Your task to perform on an android device: star an email in the gmail app Image 0: 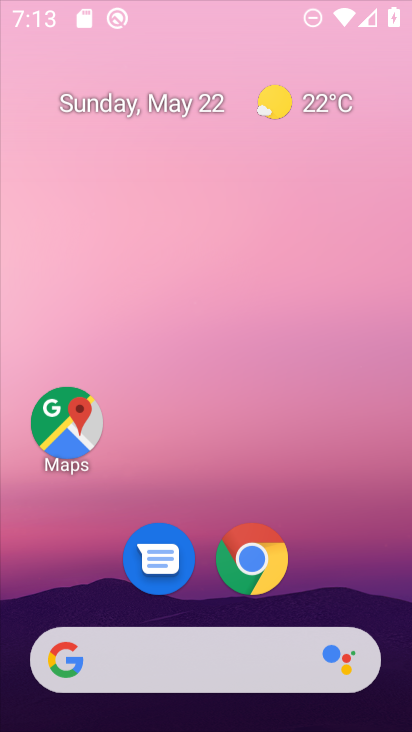
Step 0: click (204, 144)
Your task to perform on an android device: star an email in the gmail app Image 1: 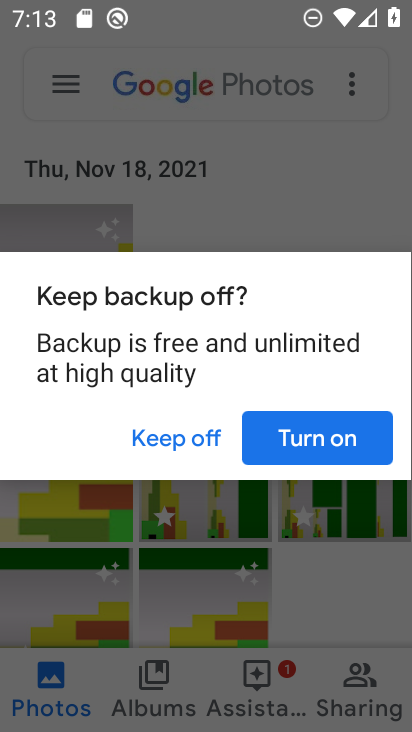
Step 1: click (174, 439)
Your task to perform on an android device: star an email in the gmail app Image 2: 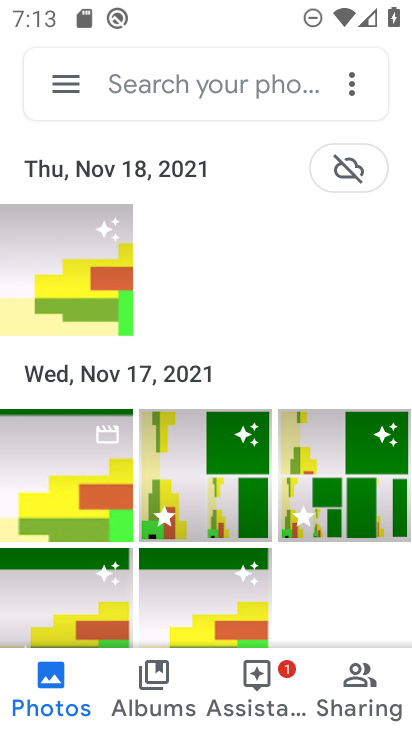
Step 2: press home button
Your task to perform on an android device: star an email in the gmail app Image 3: 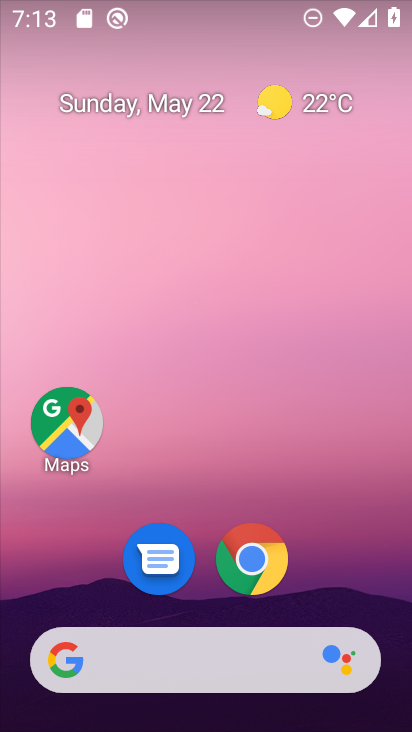
Step 3: drag from (250, 627) to (232, 143)
Your task to perform on an android device: star an email in the gmail app Image 4: 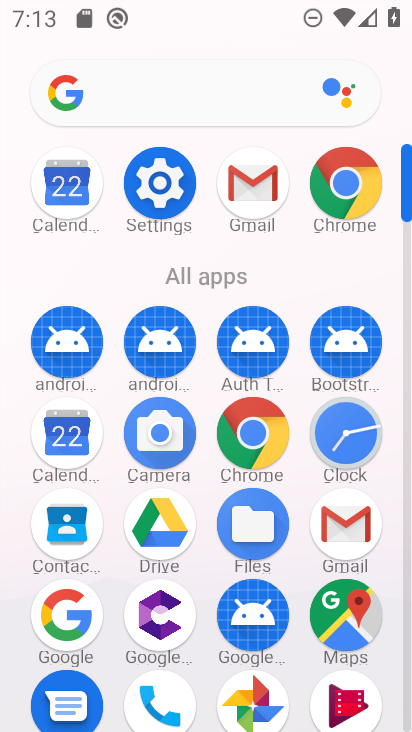
Step 4: click (234, 181)
Your task to perform on an android device: star an email in the gmail app Image 5: 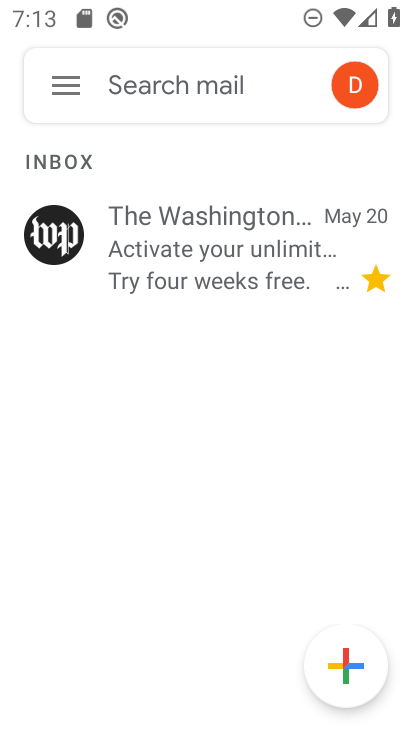
Step 5: click (65, 99)
Your task to perform on an android device: star an email in the gmail app Image 6: 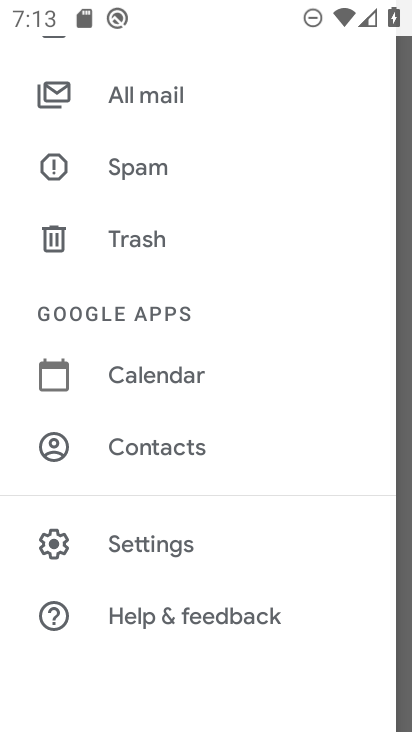
Step 6: click (136, 107)
Your task to perform on an android device: star an email in the gmail app Image 7: 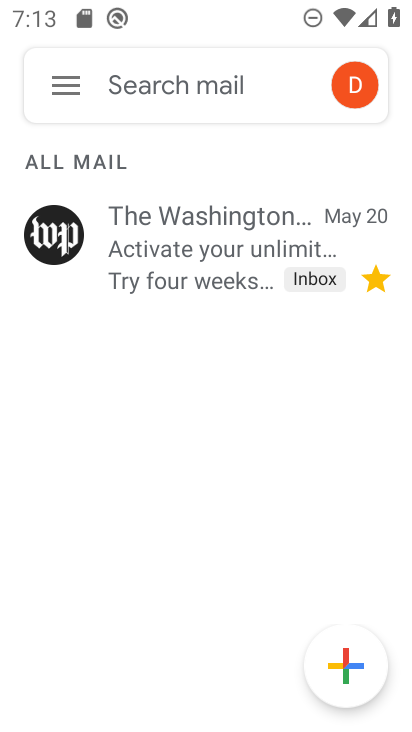
Step 7: click (201, 239)
Your task to perform on an android device: star an email in the gmail app Image 8: 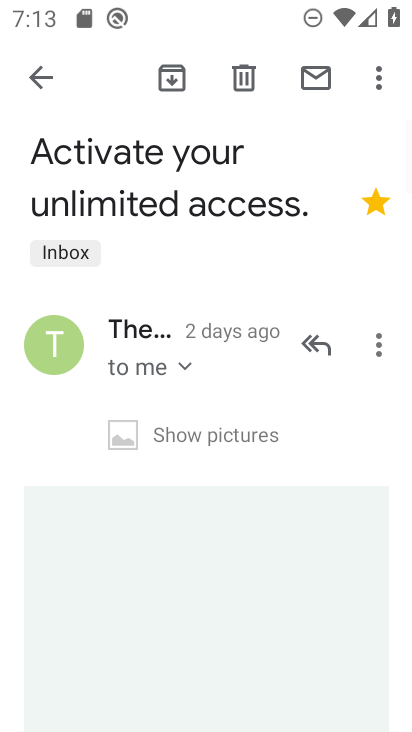
Step 8: click (373, 203)
Your task to perform on an android device: star an email in the gmail app Image 9: 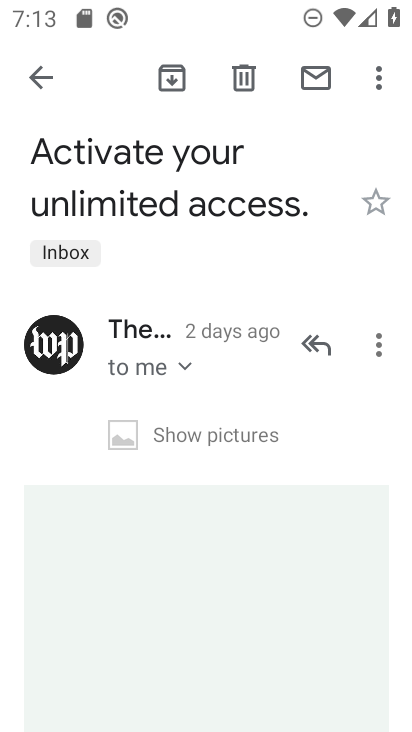
Step 9: click (370, 208)
Your task to perform on an android device: star an email in the gmail app Image 10: 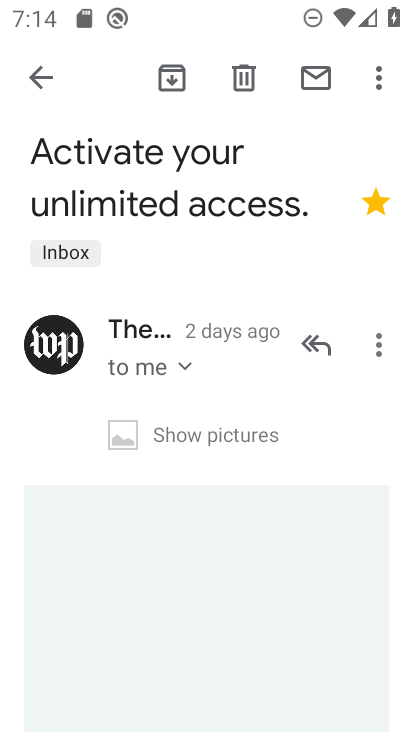
Step 10: task complete